Your task to perform on an android device: toggle notifications settings in the gmail app Image 0: 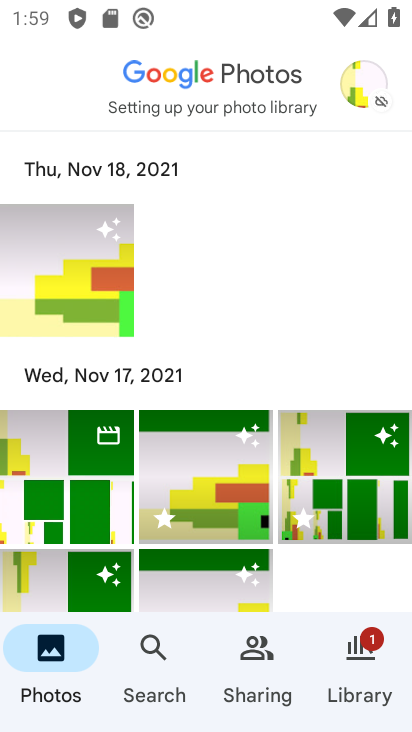
Step 0: press home button
Your task to perform on an android device: toggle notifications settings in the gmail app Image 1: 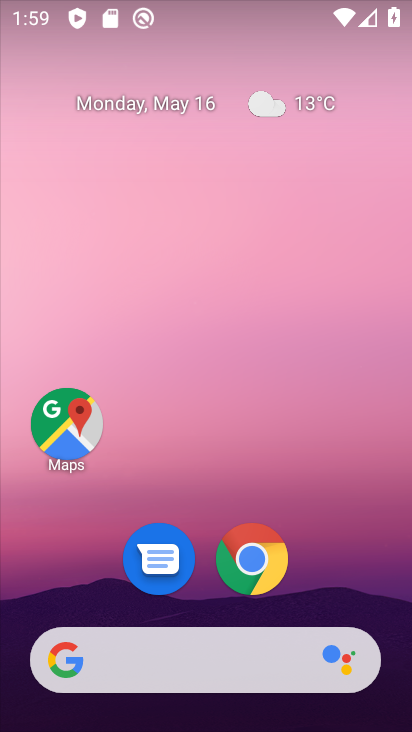
Step 1: drag from (204, 589) to (268, 248)
Your task to perform on an android device: toggle notifications settings in the gmail app Image 2: 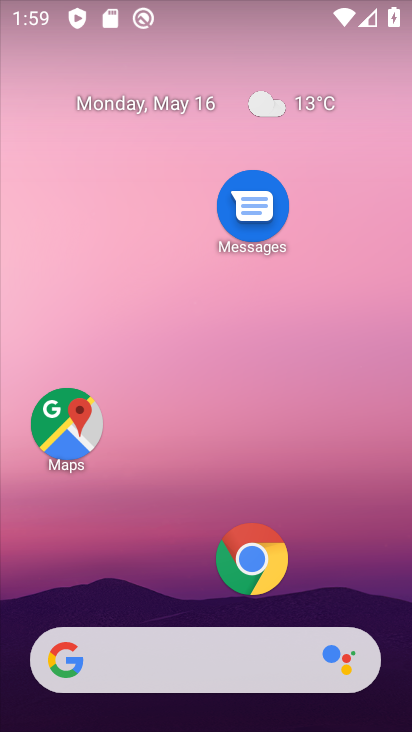
Step 2: drag from (157, 585) to (214, 116)
Your task to perform on an android device: toggle notifications settings in the gmail app Image 3: 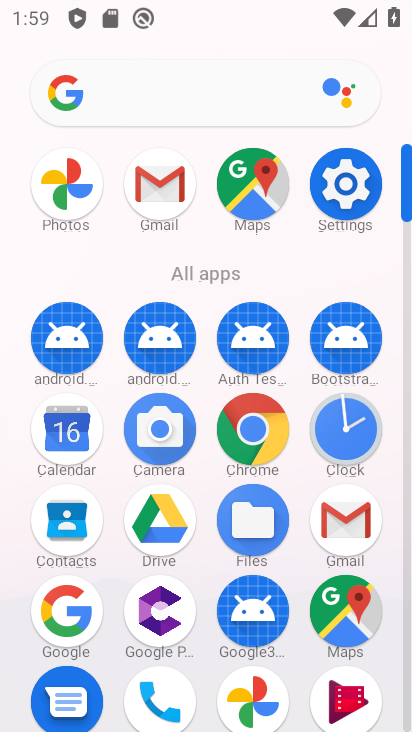
Step 3: click (352, 521)
Your task to perform on an android device: toggle notifications settings in the gmail app Image 4: 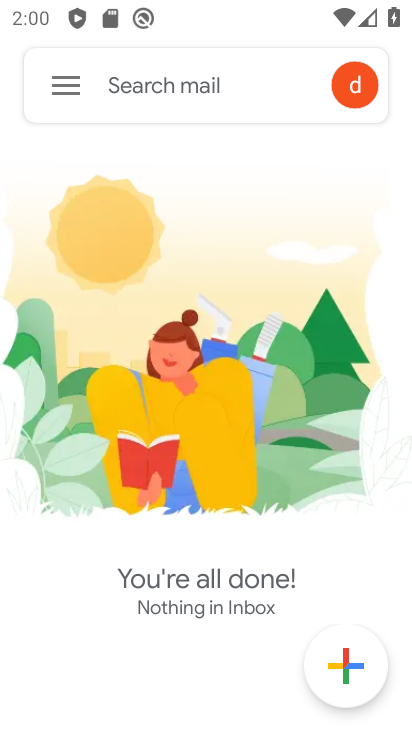
Step 4: click (71, 91)
Your task to perform on an android device: toggle notifications settings in the gmail app Image 5: 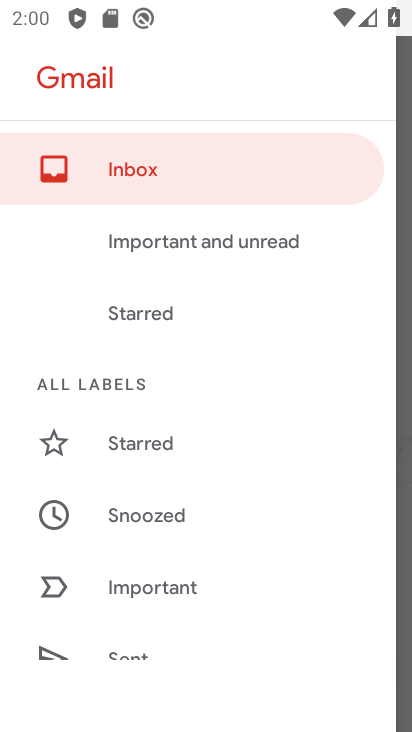
Step 5: drag from (169, 608) to (227, 231)
Your task to perform on an android device: toggle notifications settings in the gmail app Image 6: 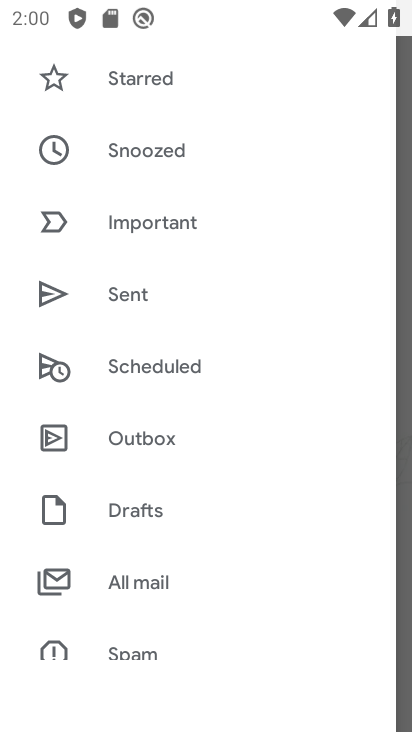
Step 6: drag from (157, 610) to (170, 243)
Your task to perform on an android device: toggle notifications settings in the gmail app Image 7: 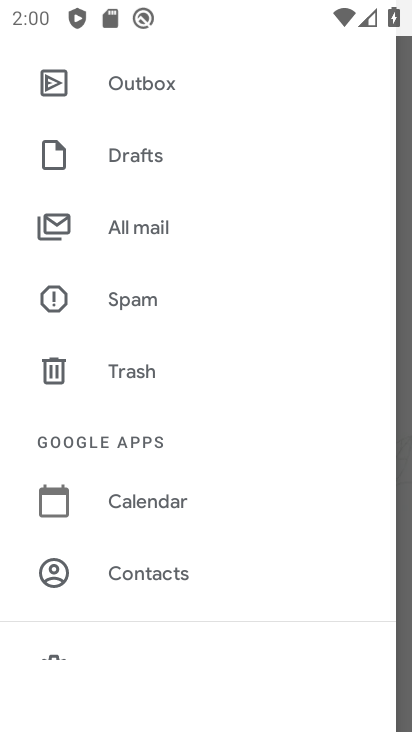
Step 7: drag from (171, 582) to (192, 309)
Your task to perform on an android device: toggle notifications settings in the gmail app Image 8: 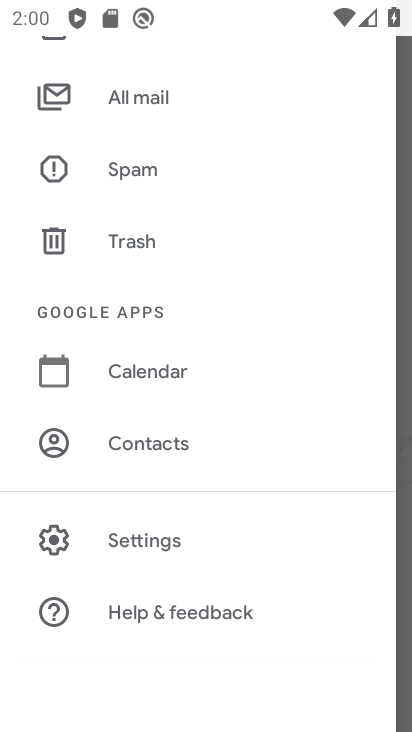
Step 8: click (124, 548)
Your task to perform on an android device: toggle notifications settings in the gmail app Image 9: 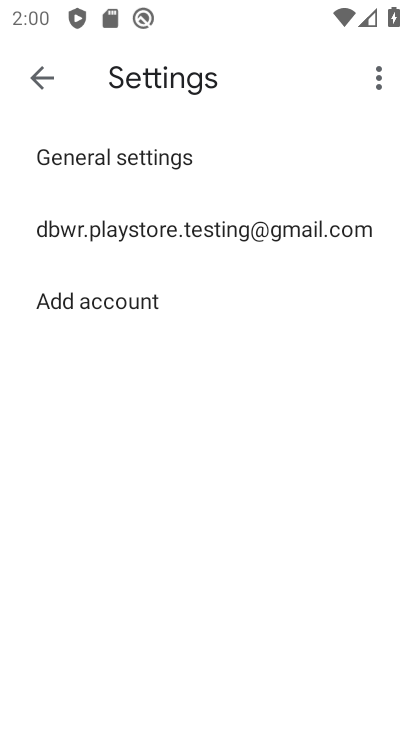
Step 9: click (127, 240)
Your task to perform on an android device: toggle notifications settings in the gmail app Image 10: 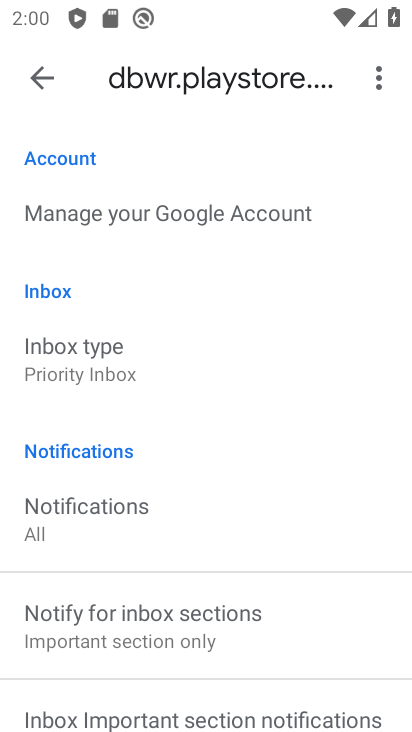
Step 10: click (102, 510)
Your task to perform on an android device: toggle notifications settings in the gmail app Image 11: 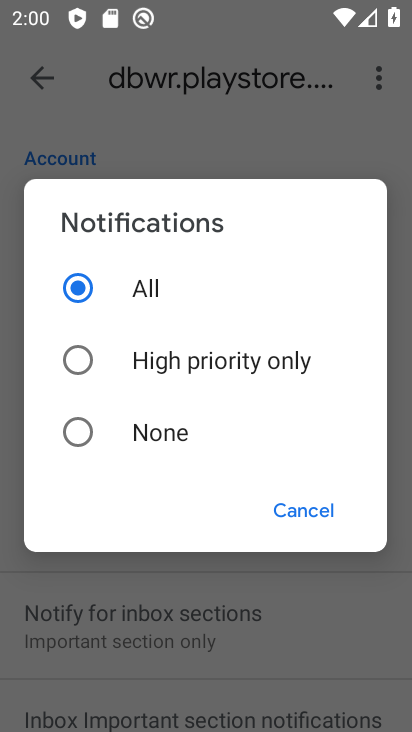
Step 11: click (70, 446)
Your task to perform on an android device: toggle notifications settings in the gmail app Image 12: 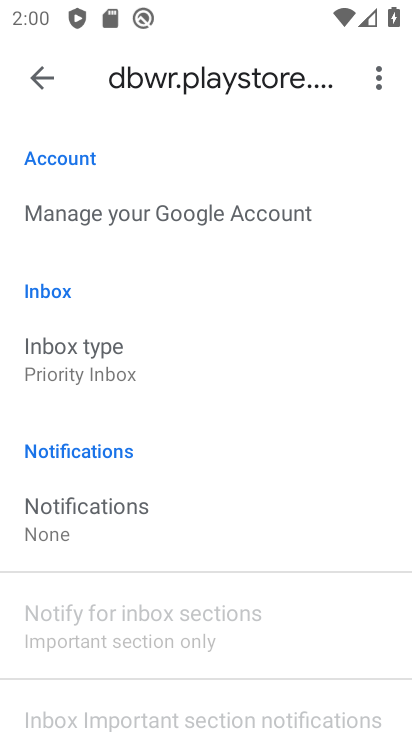
Step 12: task complete